Your task to perform on an android device: Open Chrome and go to settings Image 0: 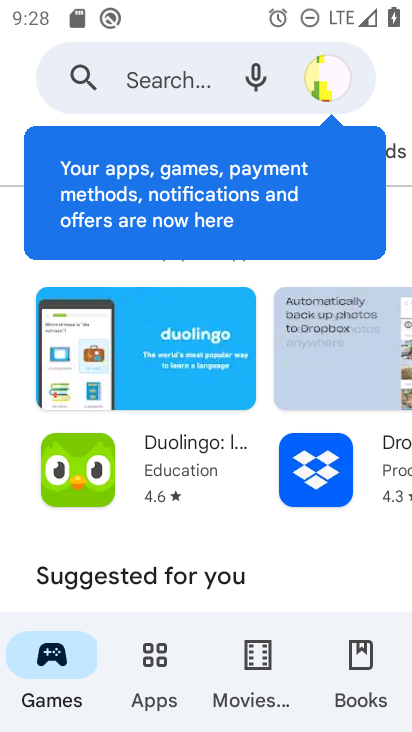
Step 0: press home button
Your task to perform on an android device: Open Chrome and go to settings Image 1: 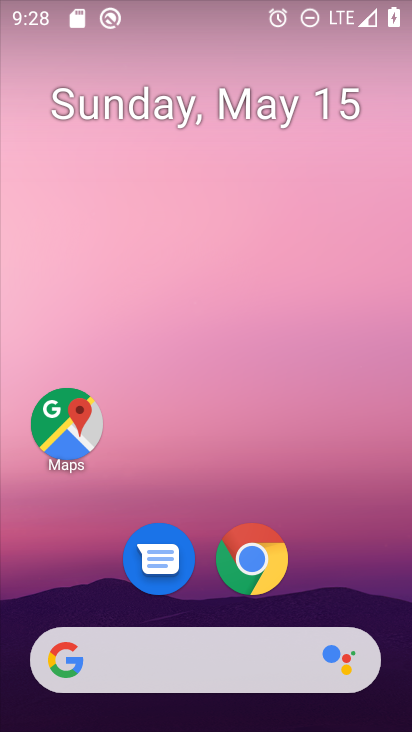
Step 1: drag from (363, 524) to (377, 13)
Your task to perform on an android device: Open Chrome and go to settings Image 2: 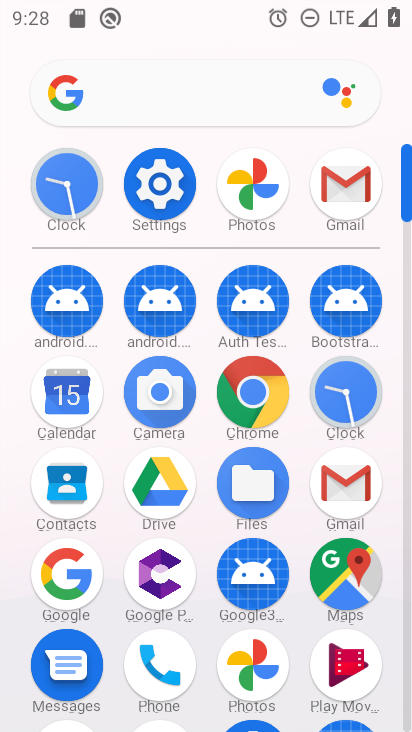
Step 2: click (166, 230)
Your task to perform on an android device: Open Chrome and go to settings Image 3: 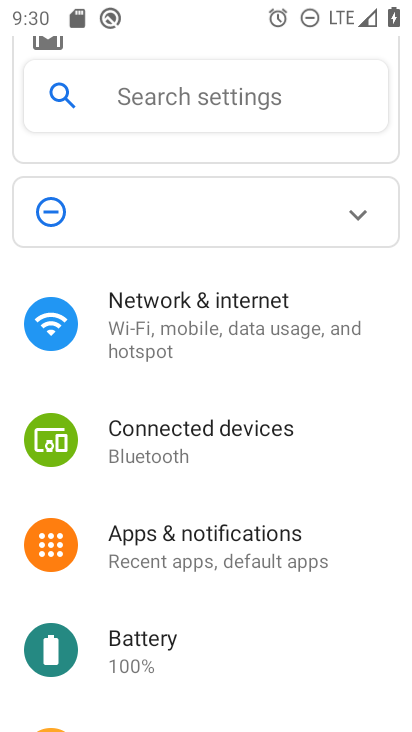
Step 3: press home button
Your task to perform on an android device: Open Chrome and go to settings Image 4: 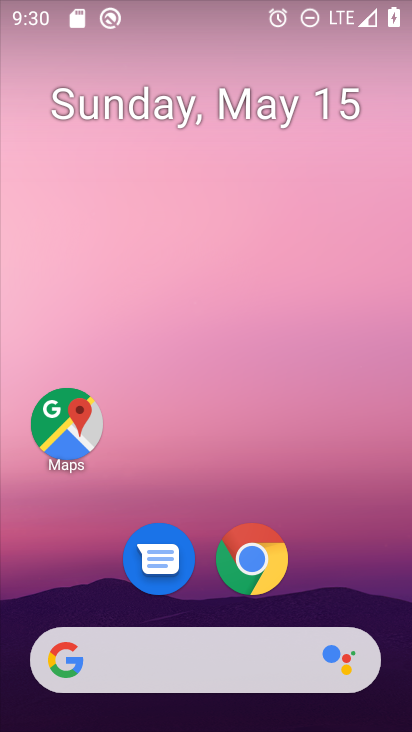
Step 4: click (244, 579)
Your task to perform on an android device: Open Chrome and go to settings Image 5: 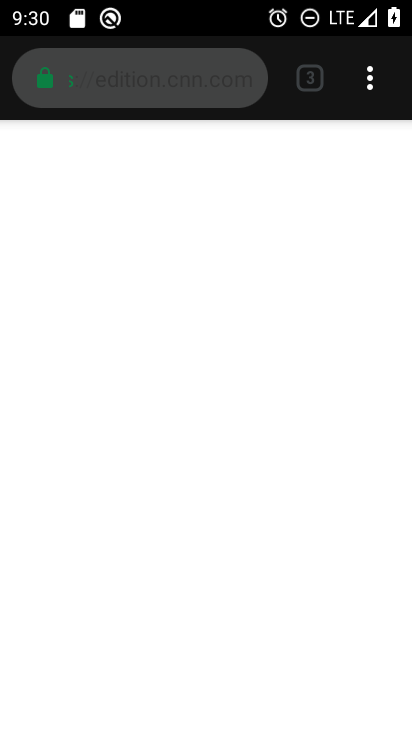
Step 5: click (372, 76)
Your task to perform on an android device: Open Chrome and go to settings Image 6: 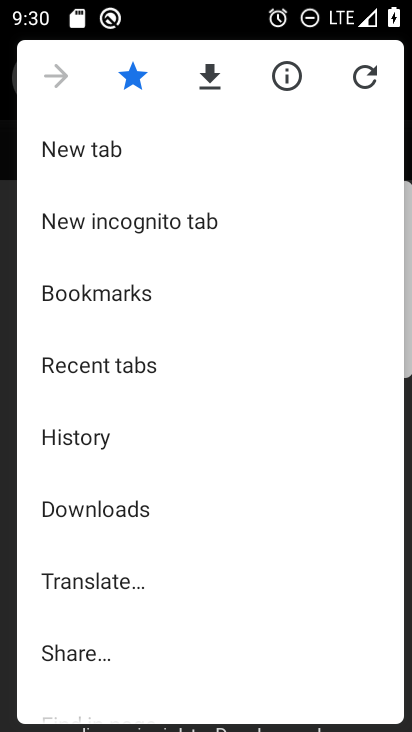
Step 6: drag from (145, 679) to (188, 226)
Your task to perform on an android device: Open Chrome and go to settings Image 7: 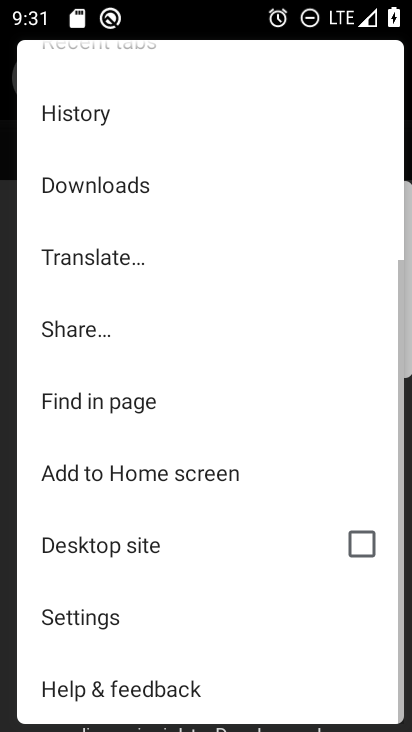
Step 7: click (195, 622)
Your task to perform on an android device: Open Chrome and go to settings Image 8: 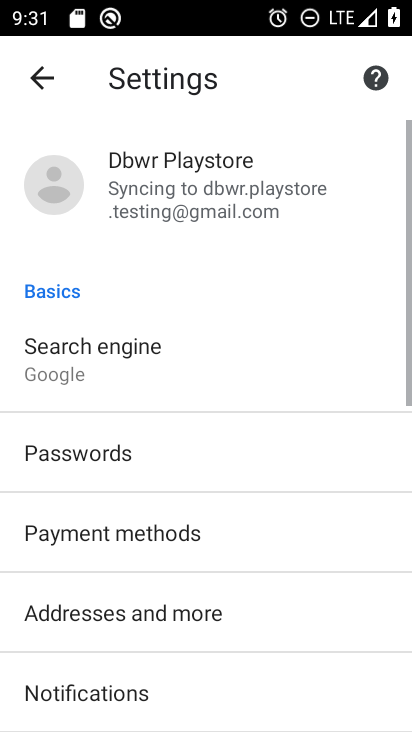
Step 8: task complete